Your task to perform on an android device: Clear the cart on amazon. Search for razer huntsman on amazon, select the first entry, add it to the cart, then select checkout. Image 0: 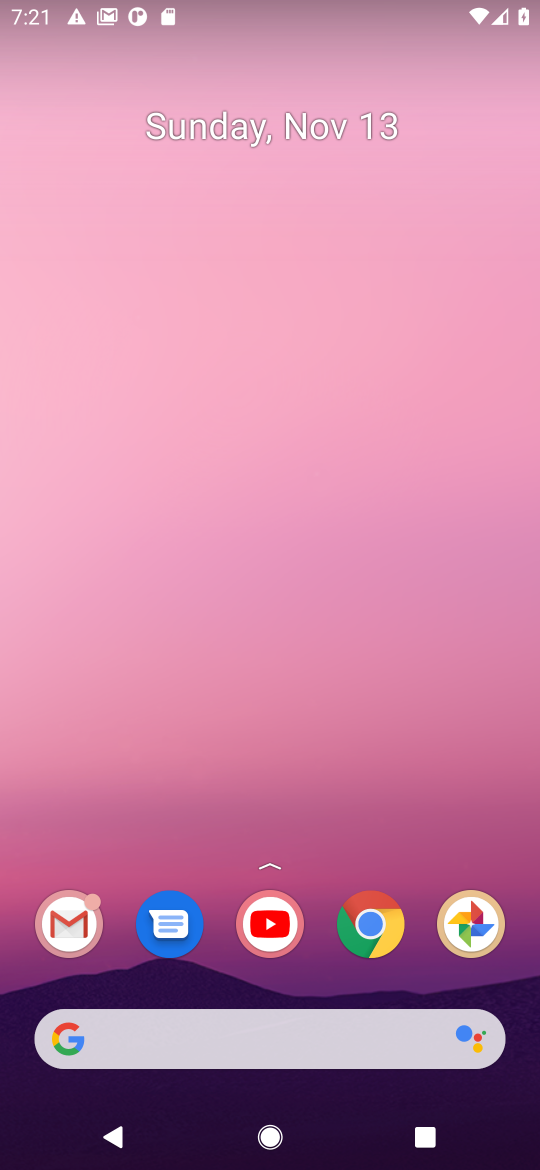
Step 0: click (368, 934)
Your task to perform on an android device: Clear the cart on amazon. Search for razer huntsman on amazon, select the first entry, add it to the cart, then select checkout. Image 1: 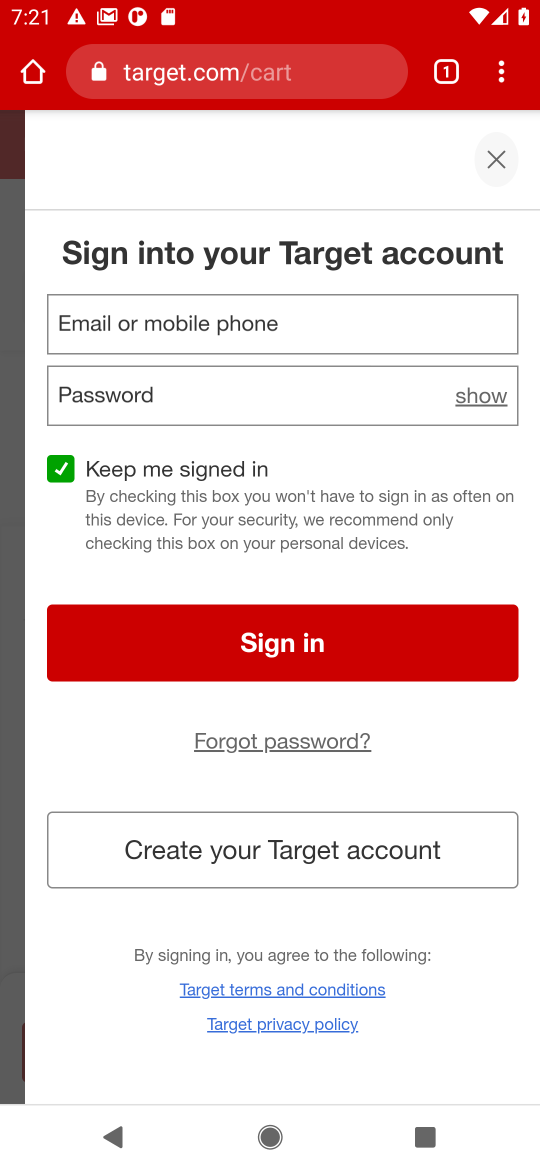
Step 1: click (196, 90)
Your task to perform on an android device: Clear the cart on amazon. Search for razer huntsman on amazon, select the first entry, add it to the cart, then select checkout. Image 2: 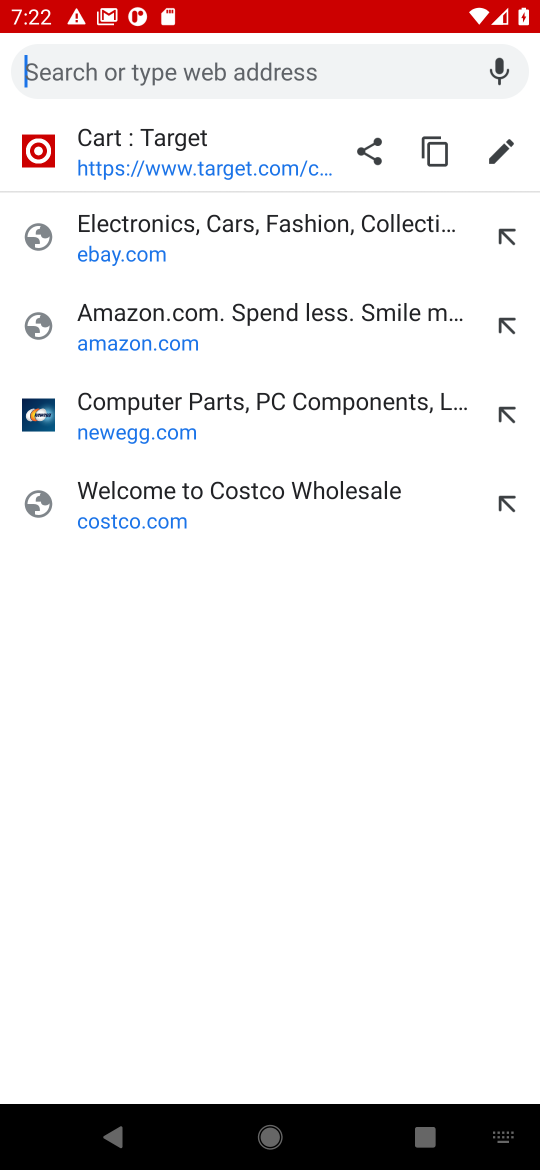
Step 2: click (122, 357)
Your task to perform on an android device: Clear the cart on amazon. Search for razer huntsman on amazon, select the first entry, add it to the cart, then select checkout. Image 3: 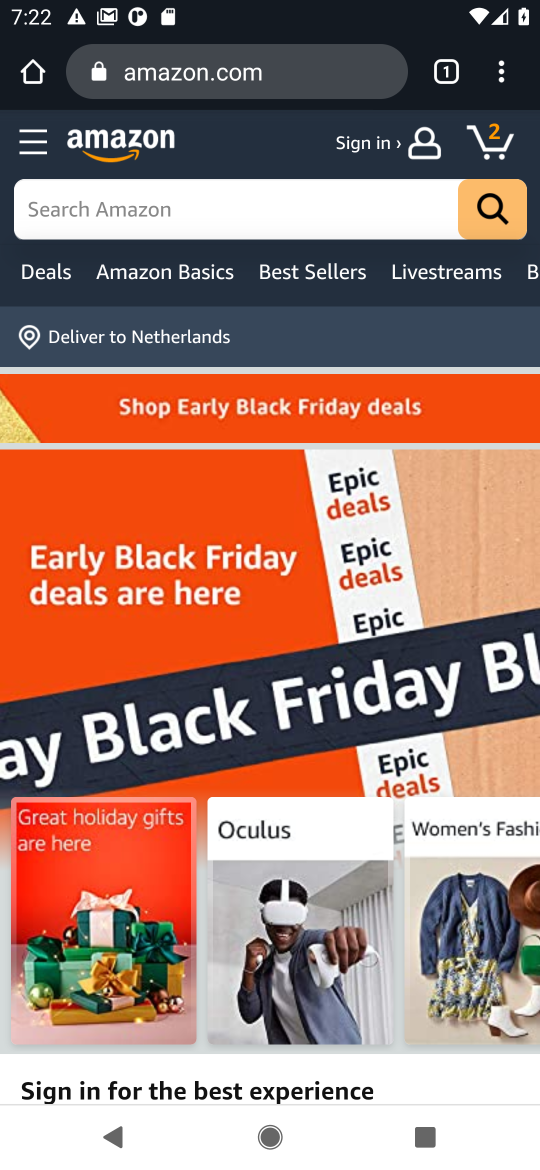
Step 3: click (494, 141)
Your task to perform on an android device: Clear the cart on amazon. Search for razer huntsman on amazon, select the first entry, add it to the cart, then select checkout. Image 4: 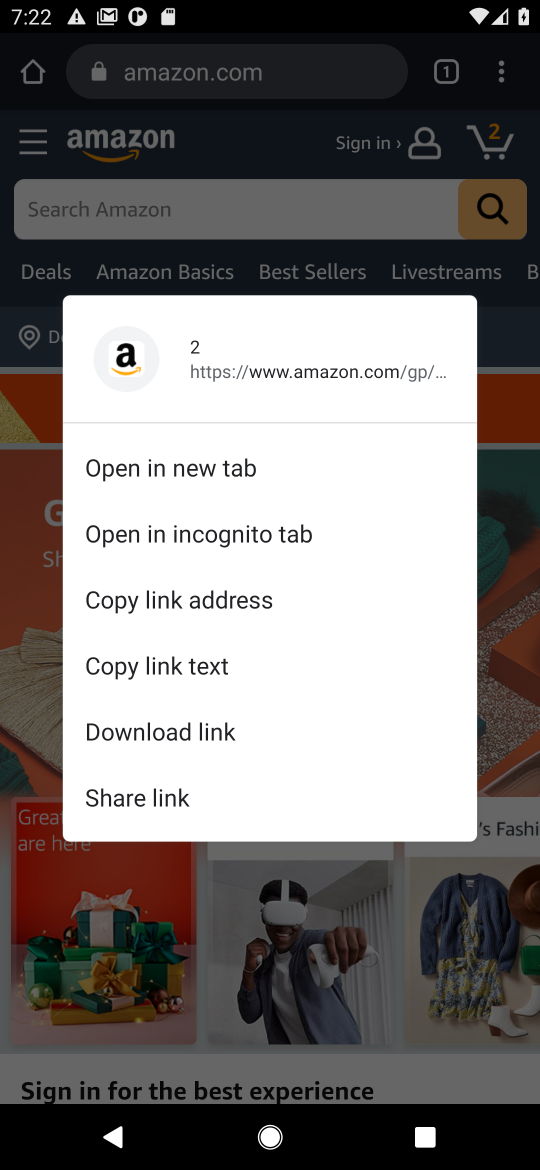
Step 4: click (495, 138)
Your task to perform on an android device: Clear the cart on amazon. Search for razer huntsman on amazon, select the first entry, add it to the cart, then select checkout. Image 5: 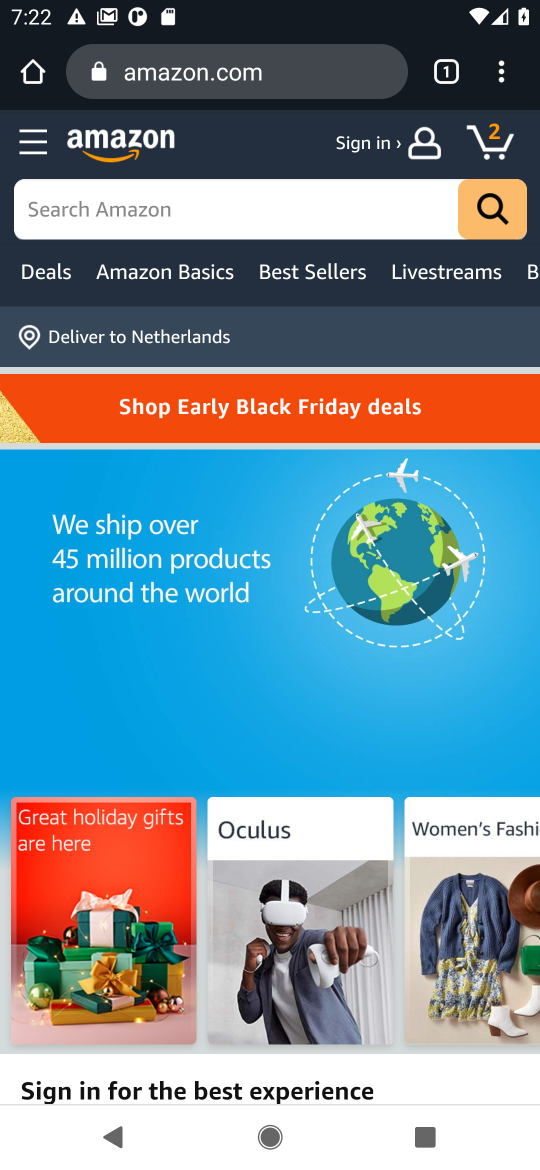
Step 5: click (495, 141)
Your task to perform on an android device: Clear the cart on amazon. Search for razer huntsman on amazon, select the first entry, add it to the cart, then select checkout. Image 6: 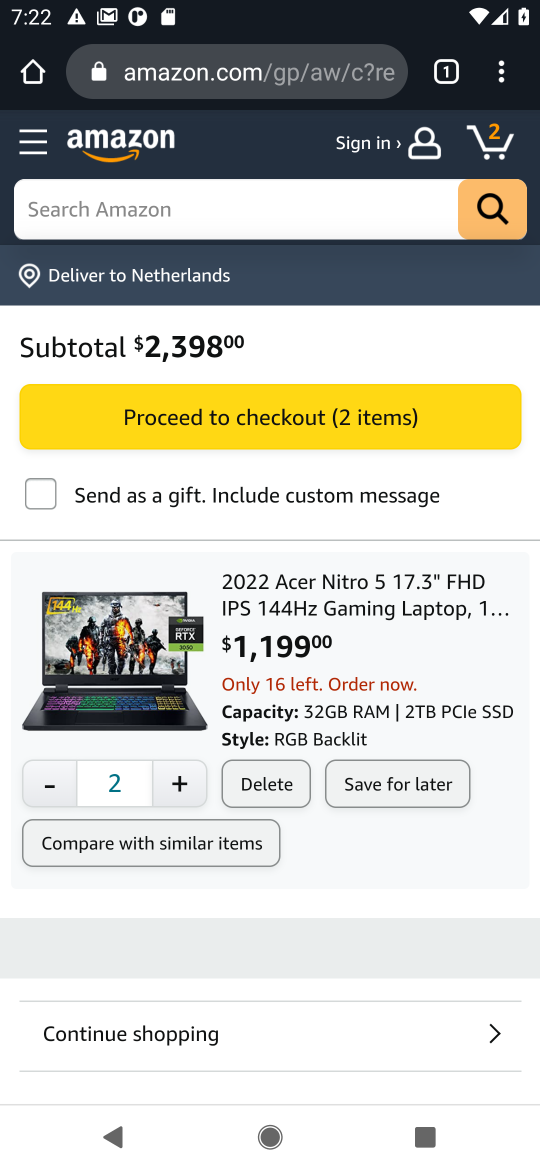
Step 6: click (255, 787)
Your task to perform on an android device: Clear the cart on amazon. Search for razer huntsman on amazon, select the first entry, add it to the cart, then select checkout. Image 7: 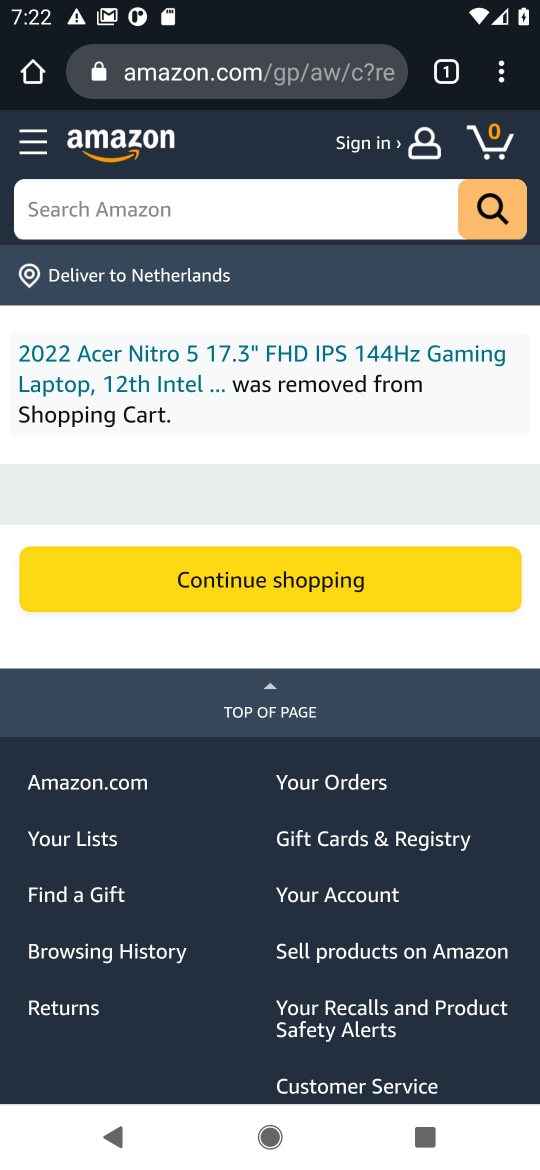
Step 7: click (149, 210)
Your task to perform on an android device: Clear the cart on amazon. Search for razer huntsman on amazon, select the first entry, add it to the cart, then select checkout. Image 8: 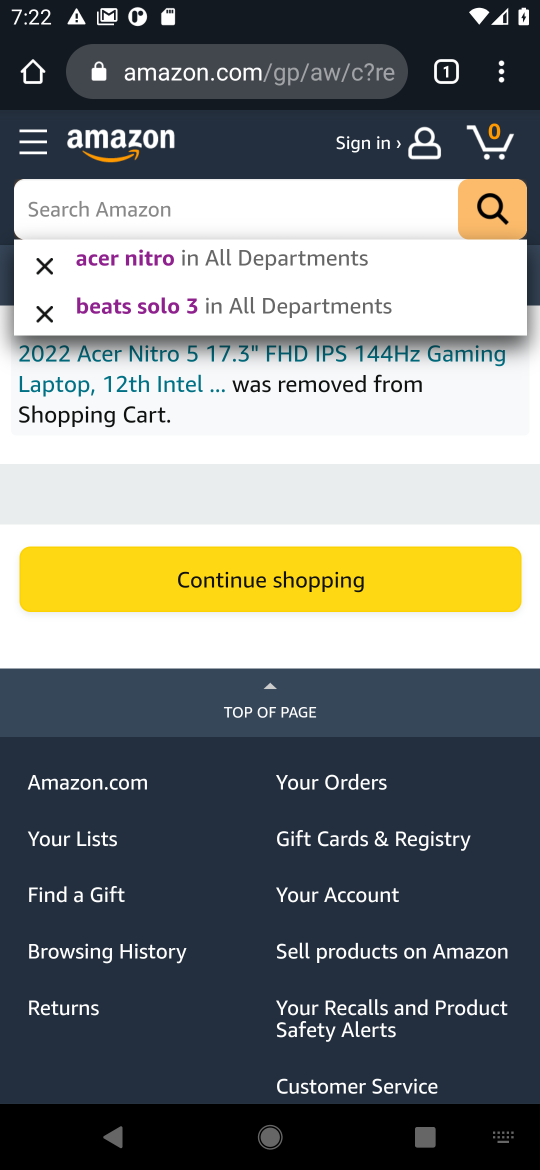
Step 8: type " razer huntsman "
Your task to perform on an android device: Clear the cart on amazon. Search for razer huntsman on amazon, select the first entry, add it to the cart, then select checkout. Image 9: 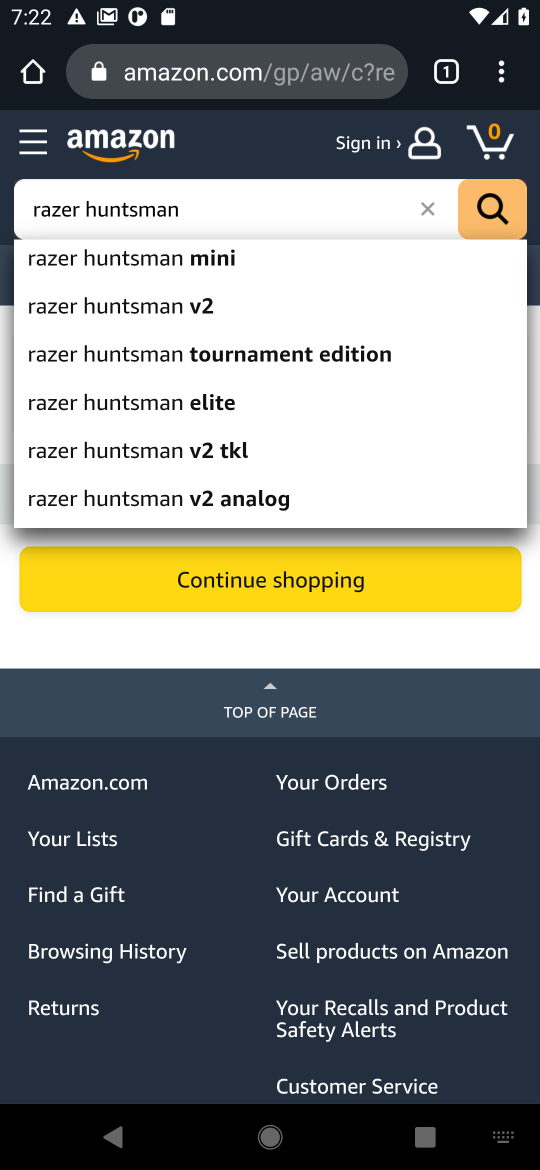
Step 9: click (481, 212)
Your task to perform on an android device: Clear the cart on amazon. Search for razer huntsman on amazon, select the first entry, add it to the cart, then select checkout. Image 10: 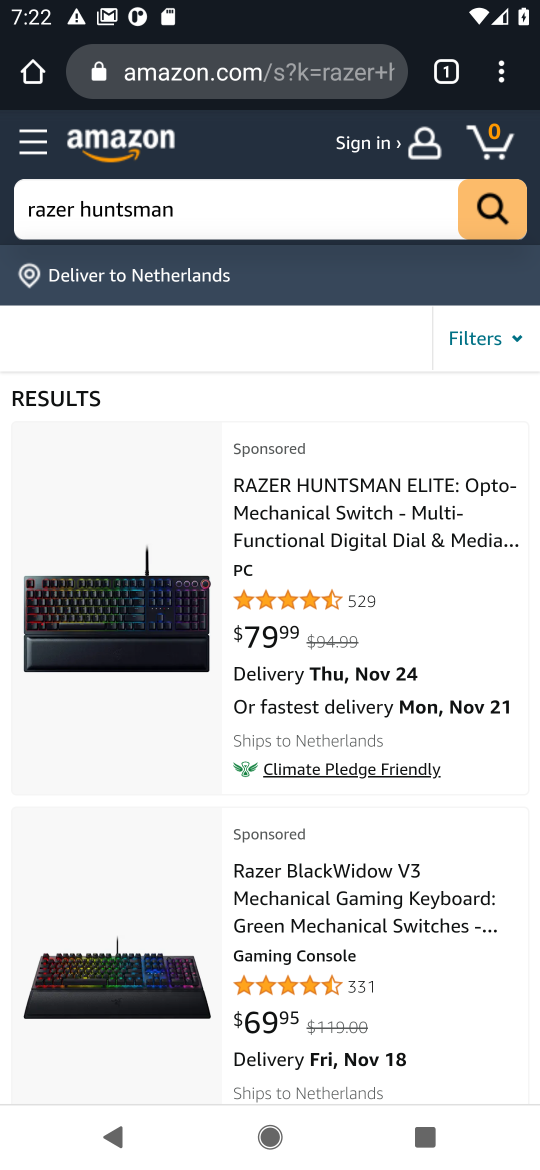
Step 10: click (82, 644)
Your task to perform on an android device: Clear the cart on amazon. Search for razer huntsman on amazon, select the first entry, add it to the cart, then select checkout. Image 11: 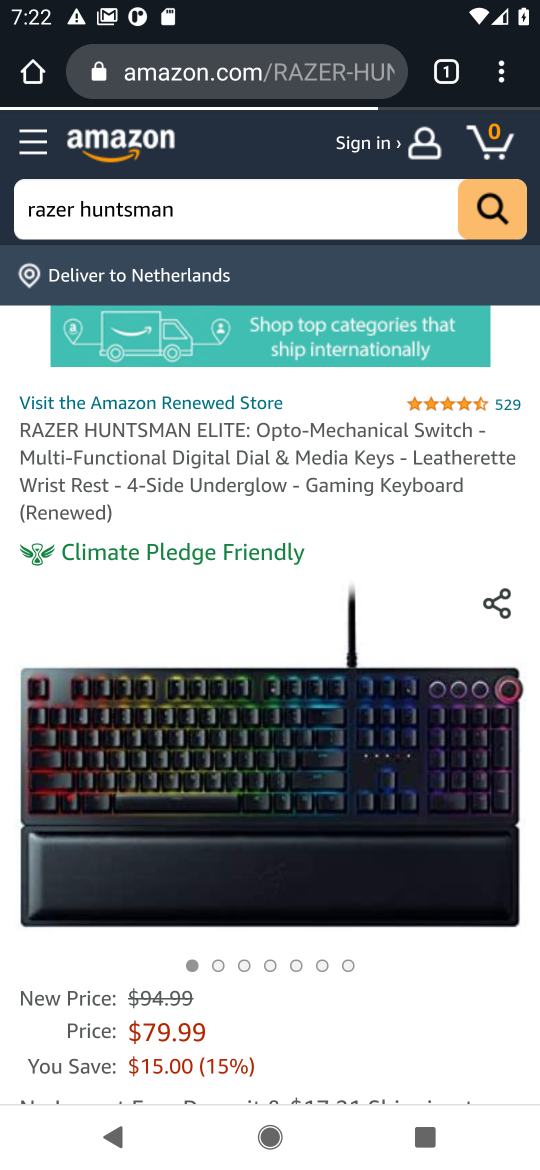
Step 11: drag from (235, 836) to (230, 340)
Your task to perform on an android device: Clear the cart on amazon. Search for razer huntsman on amazon, select the first entry, add it to the cart, then select checkout. Image 12: 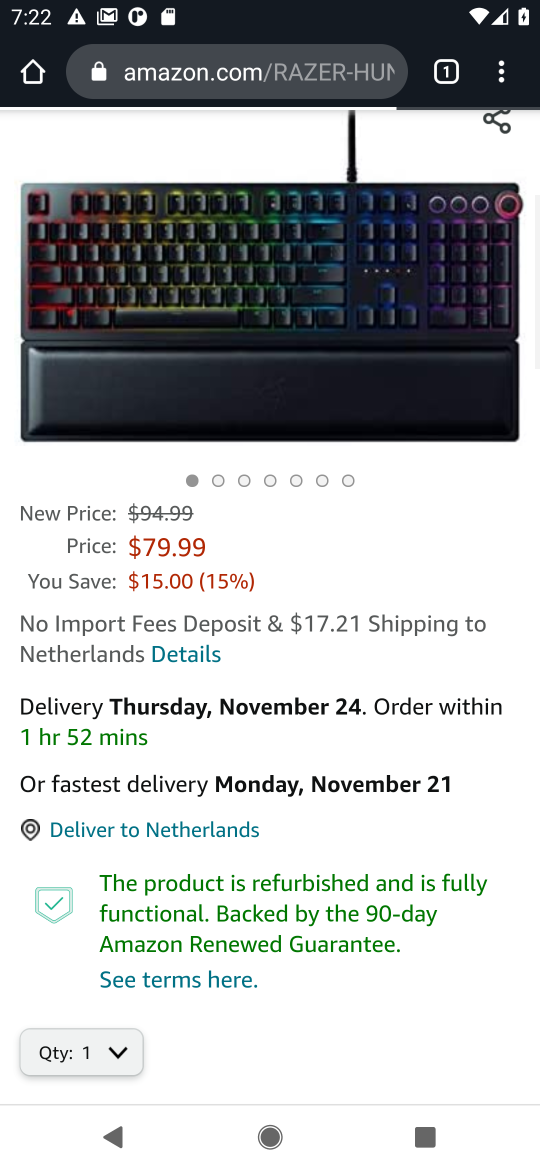
Step 12: drag from (208, 756) to (189, 288)
Your task to perform on an android device: Clear the cart on amazon. Search for razer huntsman on amazon, select the first entry, add it to the cart, then select checkout. Image 13: 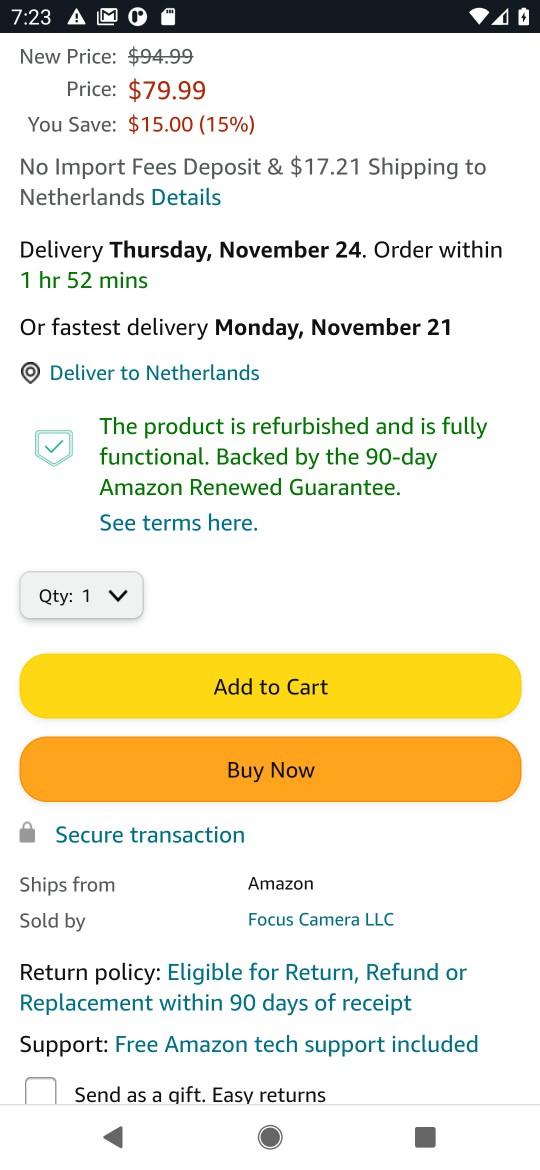
Step 13: click (221, 690)
Your task to perform on an android device: Clear the cart on amazon. Search for razer huntsman on amazon, select the first entry, add it to the cart, then select checkout. Image 14: 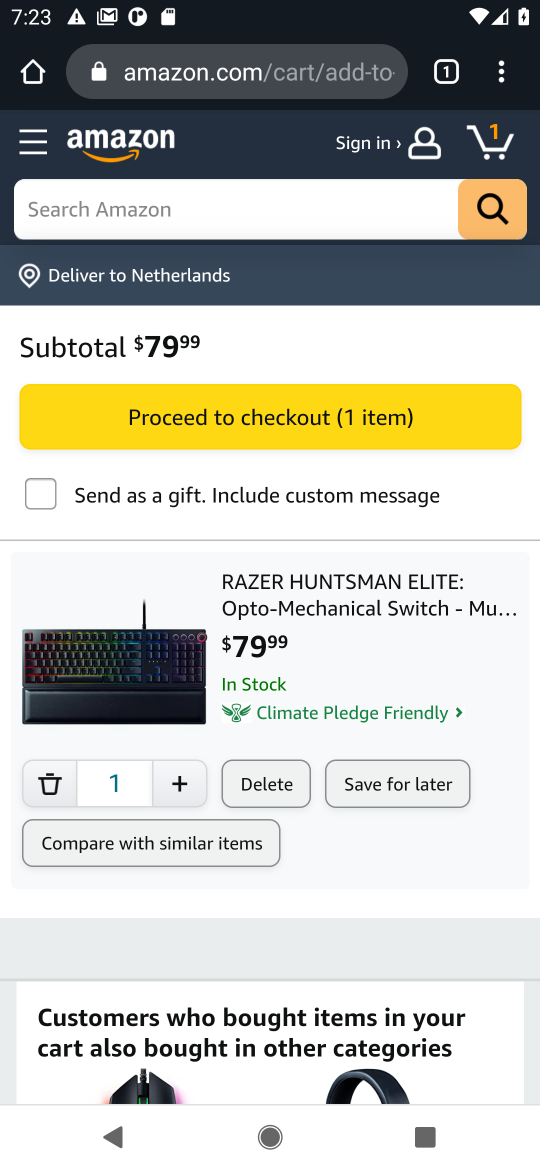
Step 14: click (244, 419)
Your task to perform on an android device: Clear the cart on amazon. Search for razer huntsman on amazon, select the first entry, add it to the cart, then select checkout. Image 15: 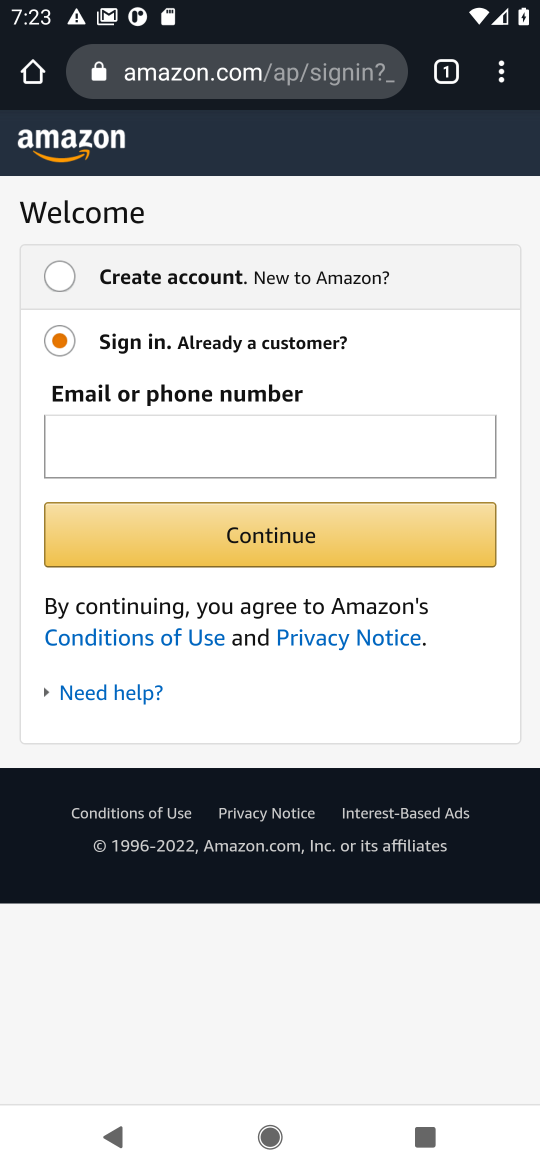
Step 15: task complete